Your task to perform on an android device: turn on the 24-hour format for clock Image 0: 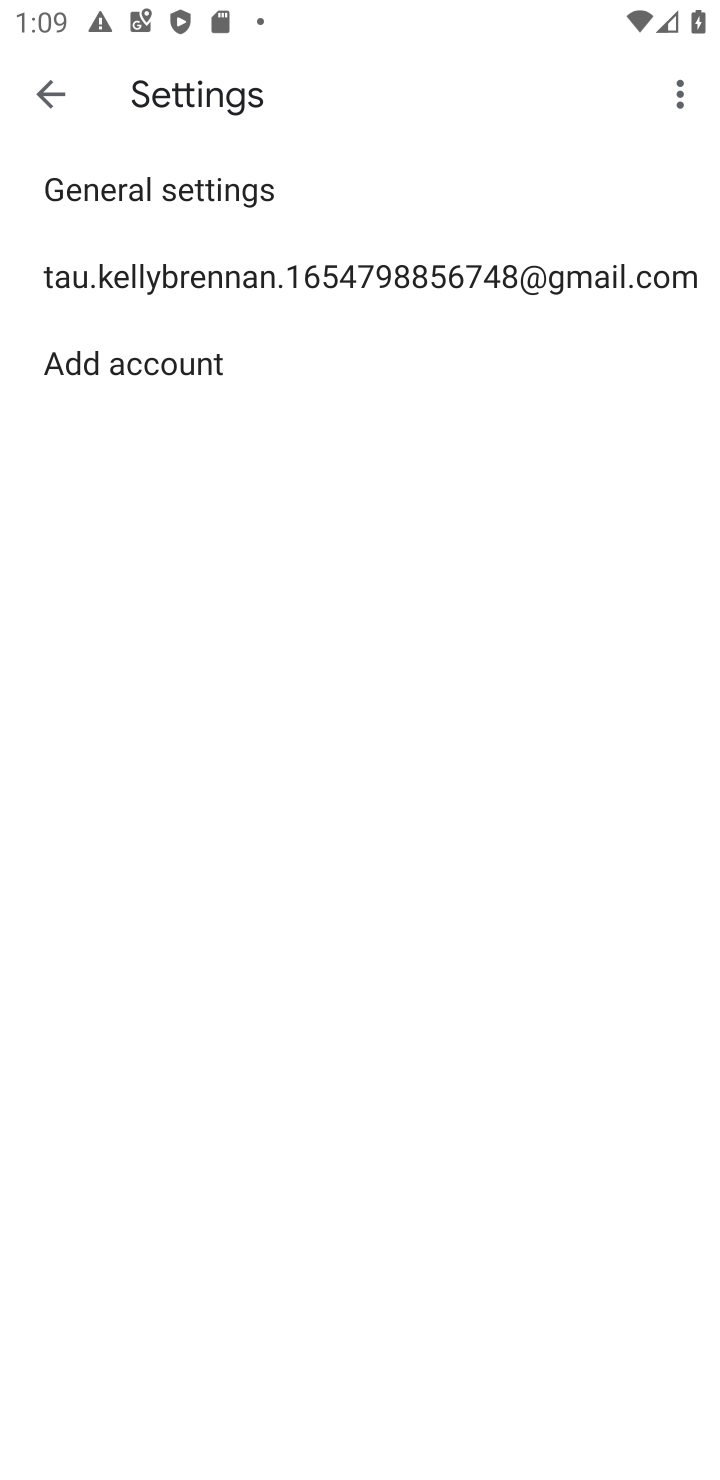
Step 0: press home button
Your task to perform on an android device: turn on the 24-hour format for clock Image 1: 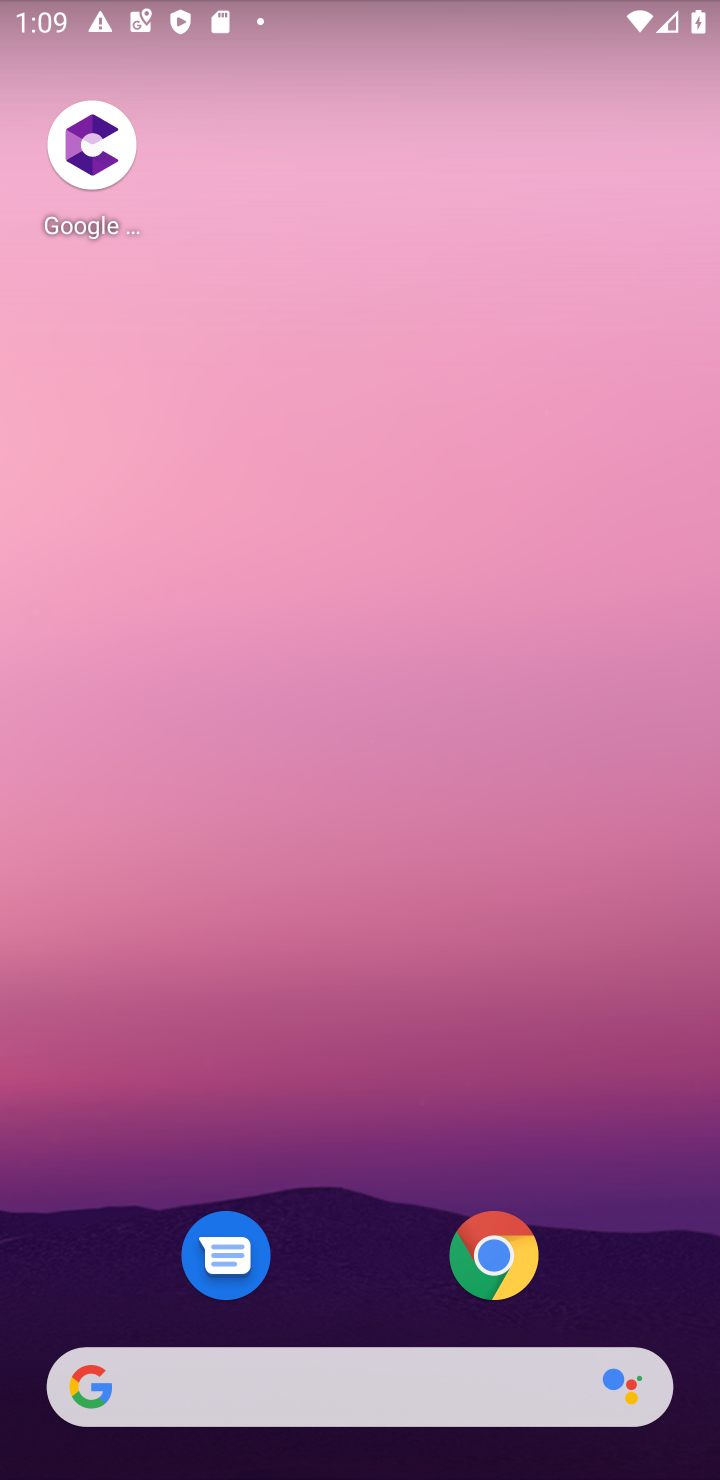
Step 1: drag from (670, 1301) to (404, 547)
Your task to perform on an android device: turn on the 24-hour format for clock Image 2: 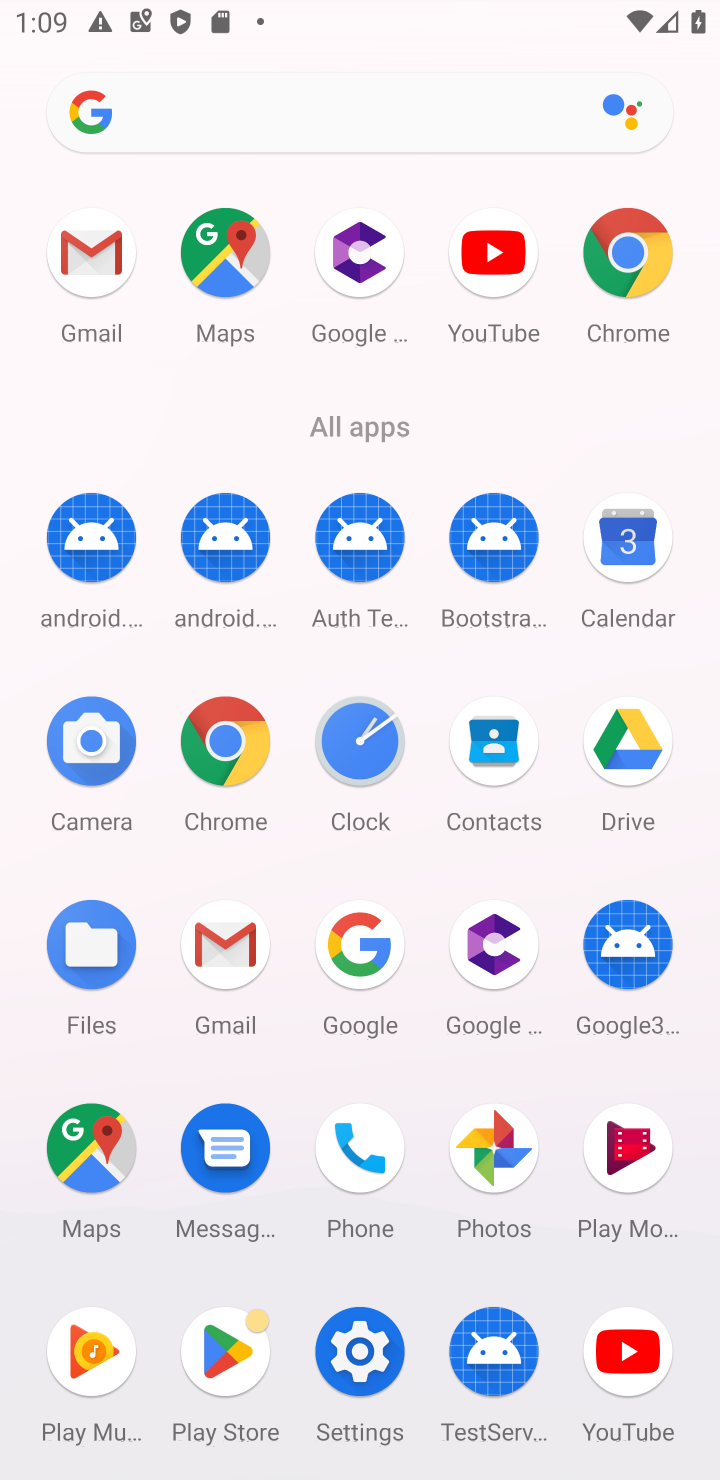
Step 2: click (369, 745)
Your task to perform on an android device: turn on the 24-hour format for clock Image 3: 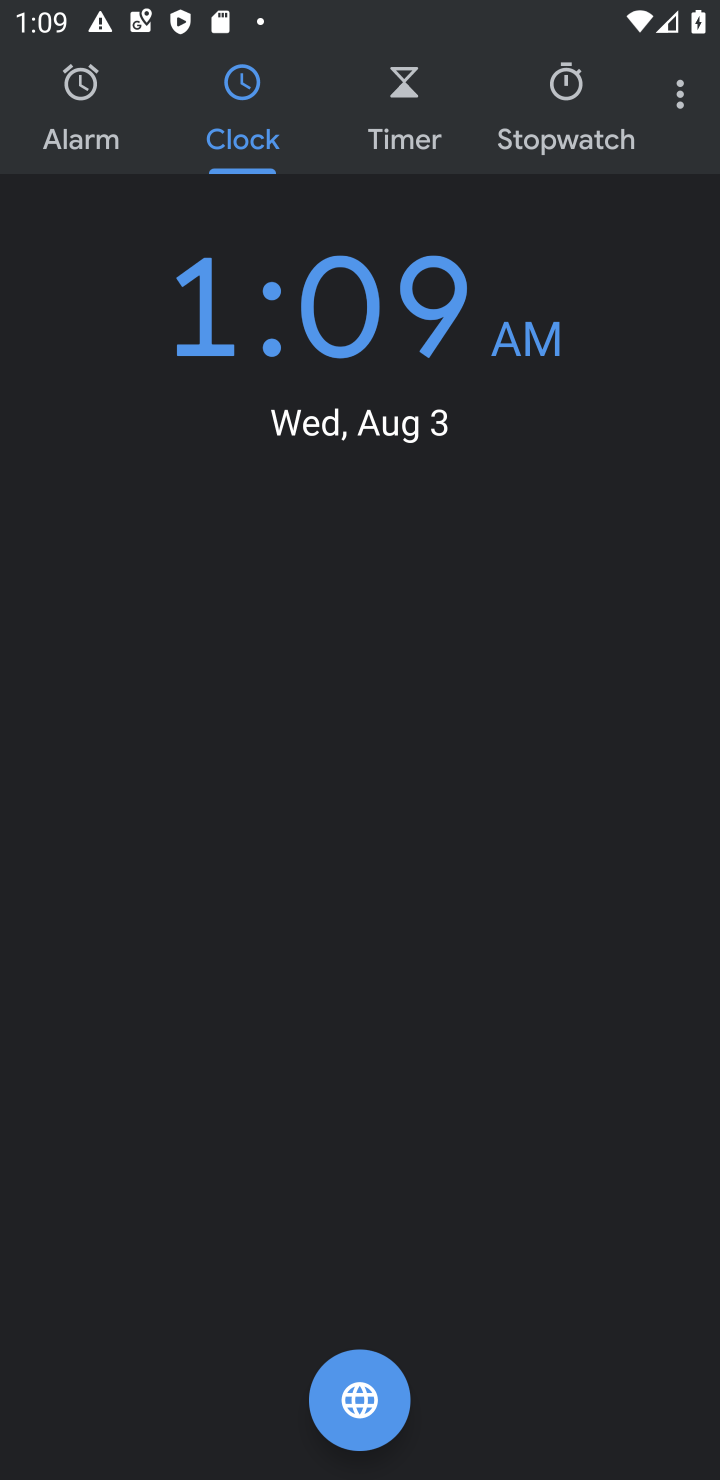
Step 3: click (682, 105)
Your task to perform on an android device: turn on the 24-hour format for clock Image 4: 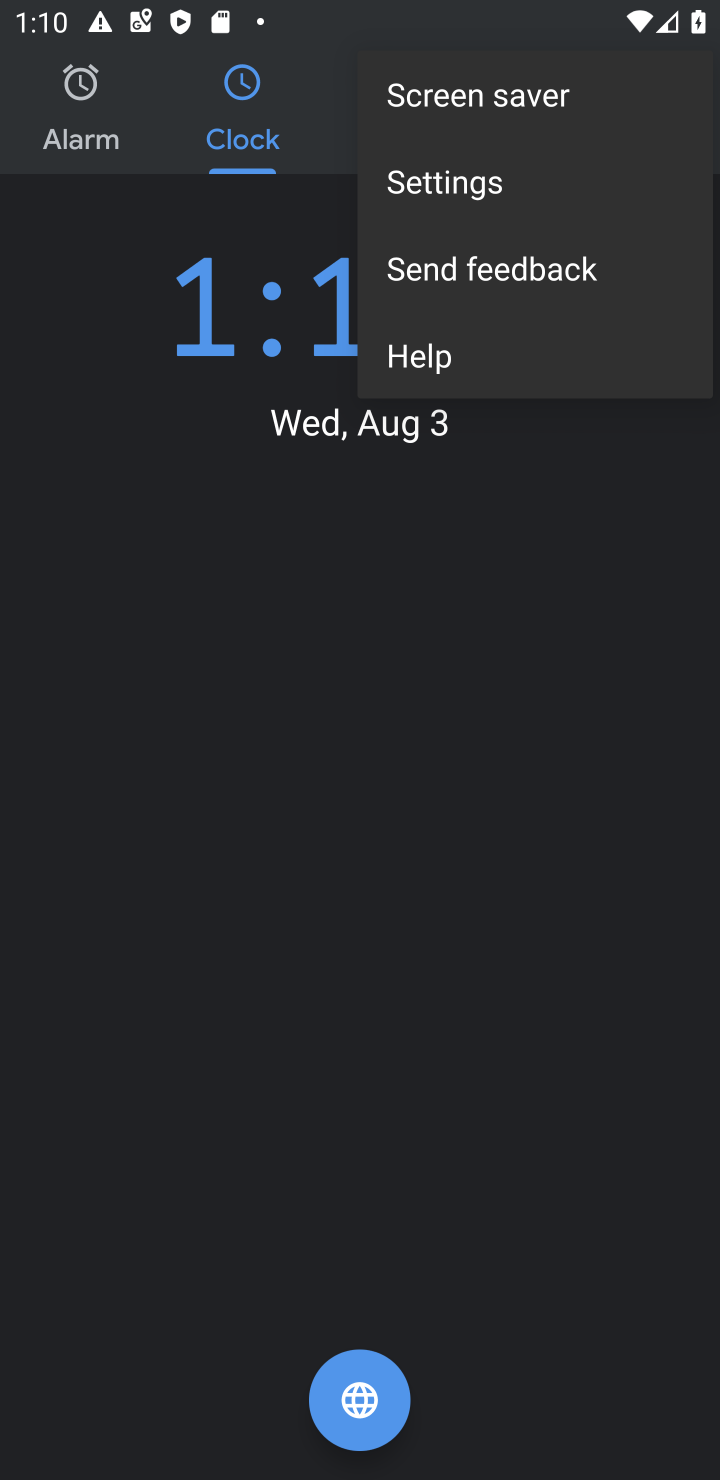
Step 4: click (559, 193)
Your task to perform on an android device: turn on the 24-hour format for clock Image 5: 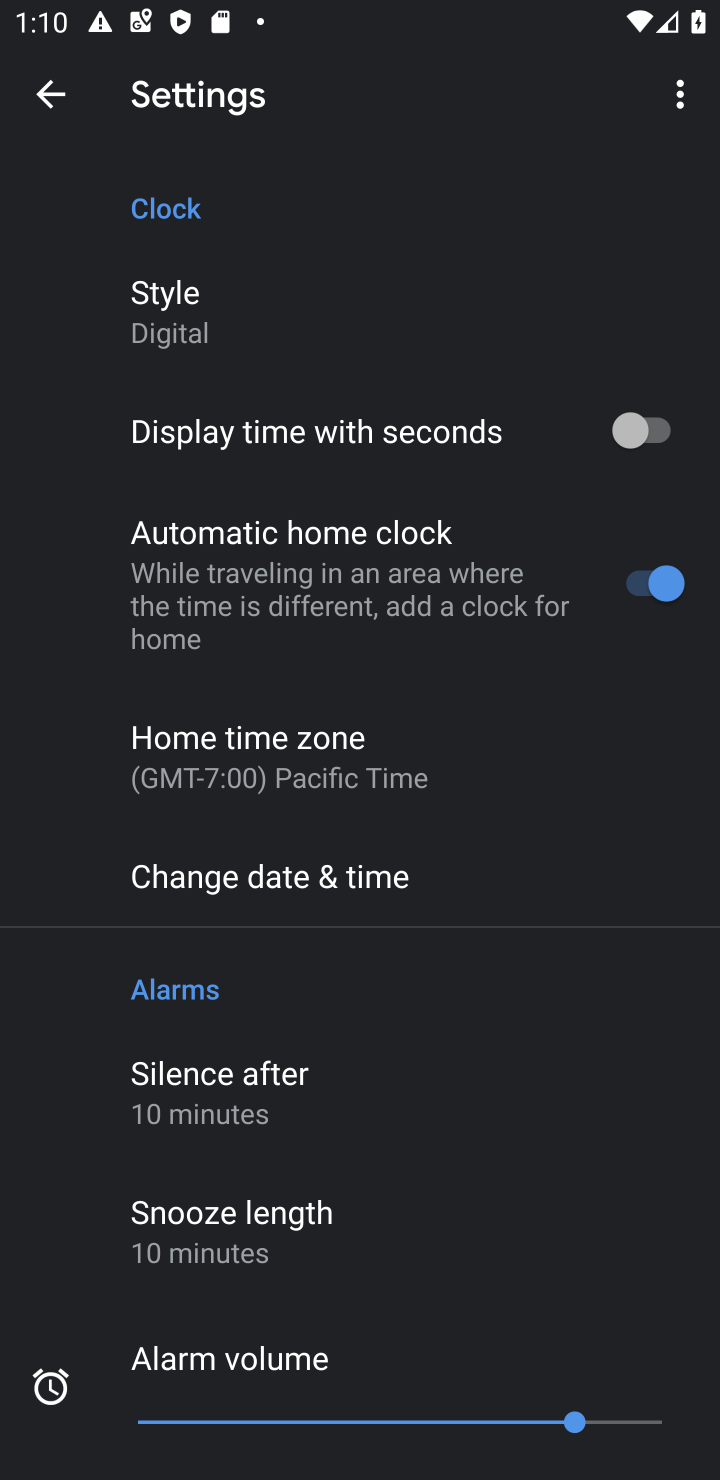
Step 5: click (443, 891)
Your task to perform on an android device: turn on the 24-hour format for clock Image 6: 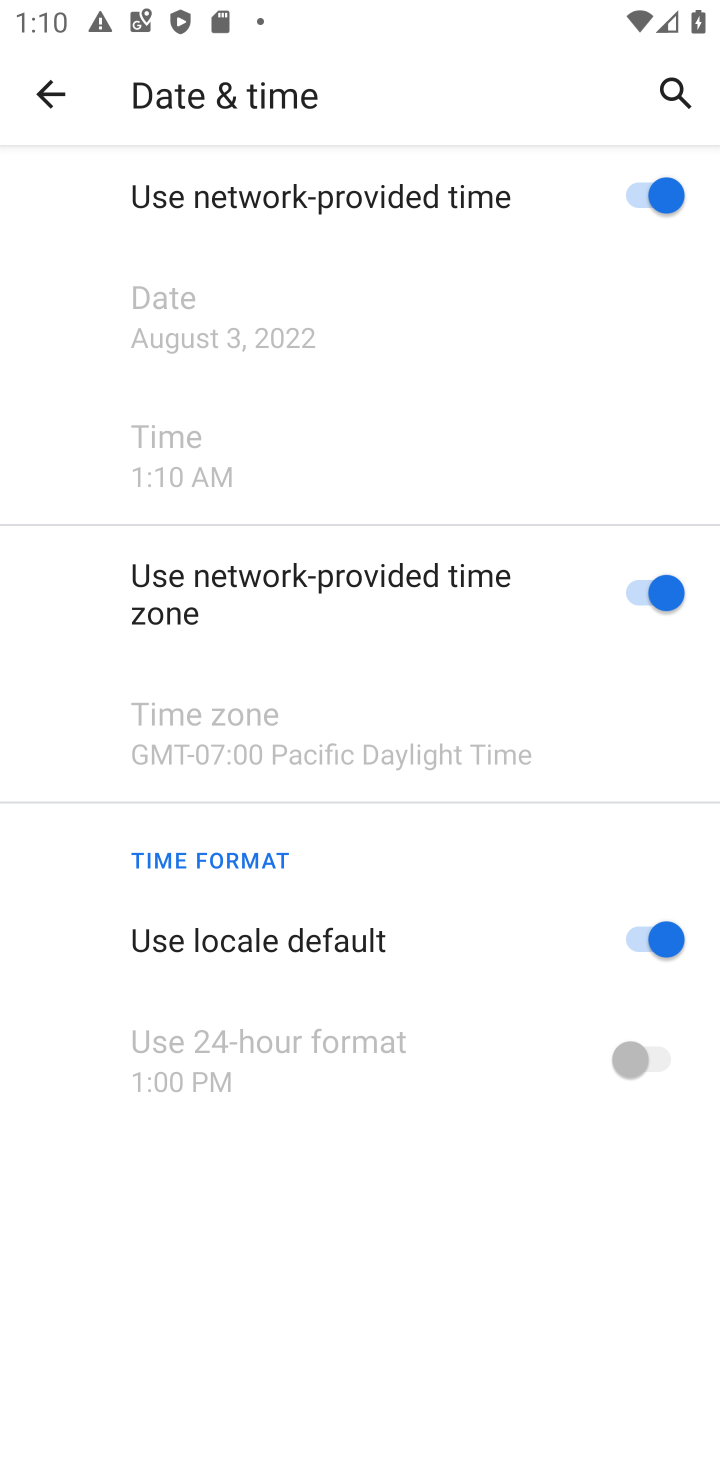
Step 6: click (662, 927)
Your task to perform on an android device: turn on the 24-hour format for clock Image 7: 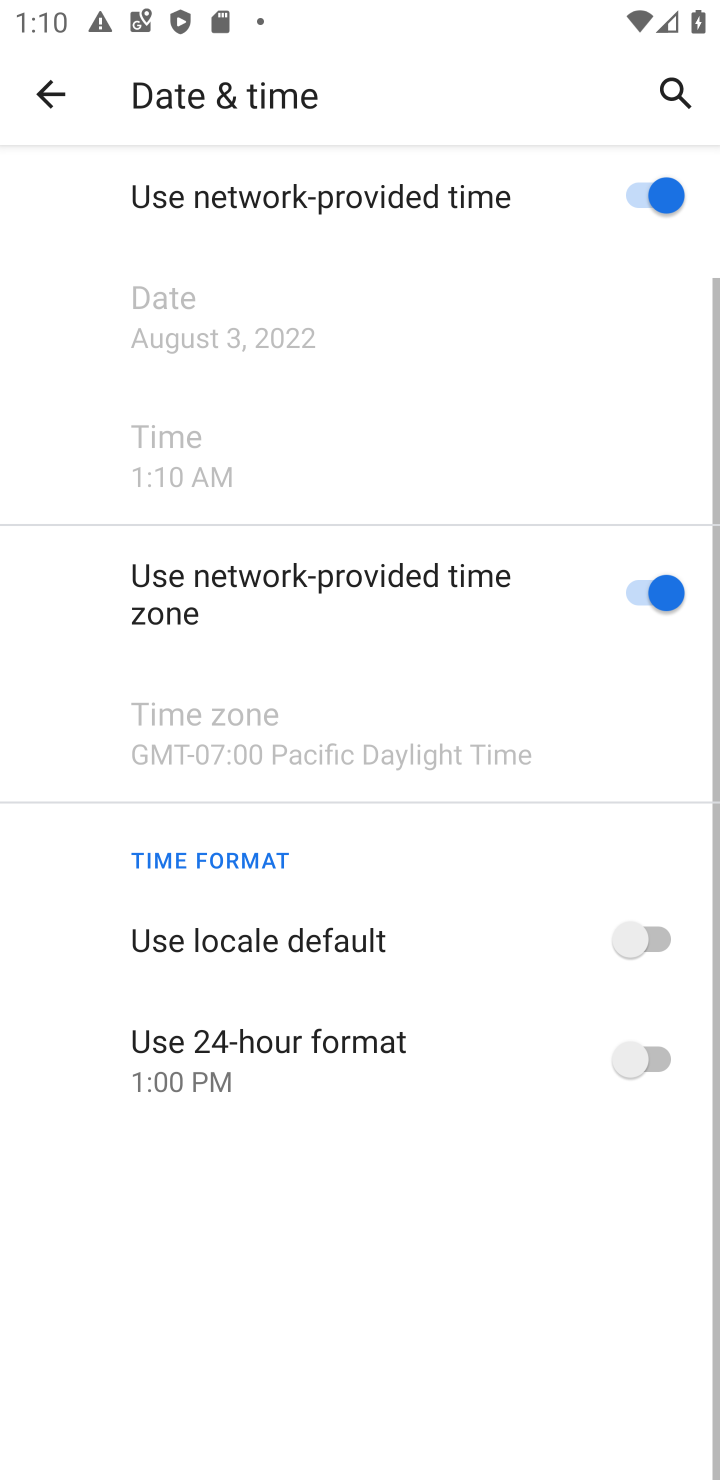
Step 7: click (651, 1080)
Your task to perform on an android device: turn on the 24-hour format for clock Image 8: 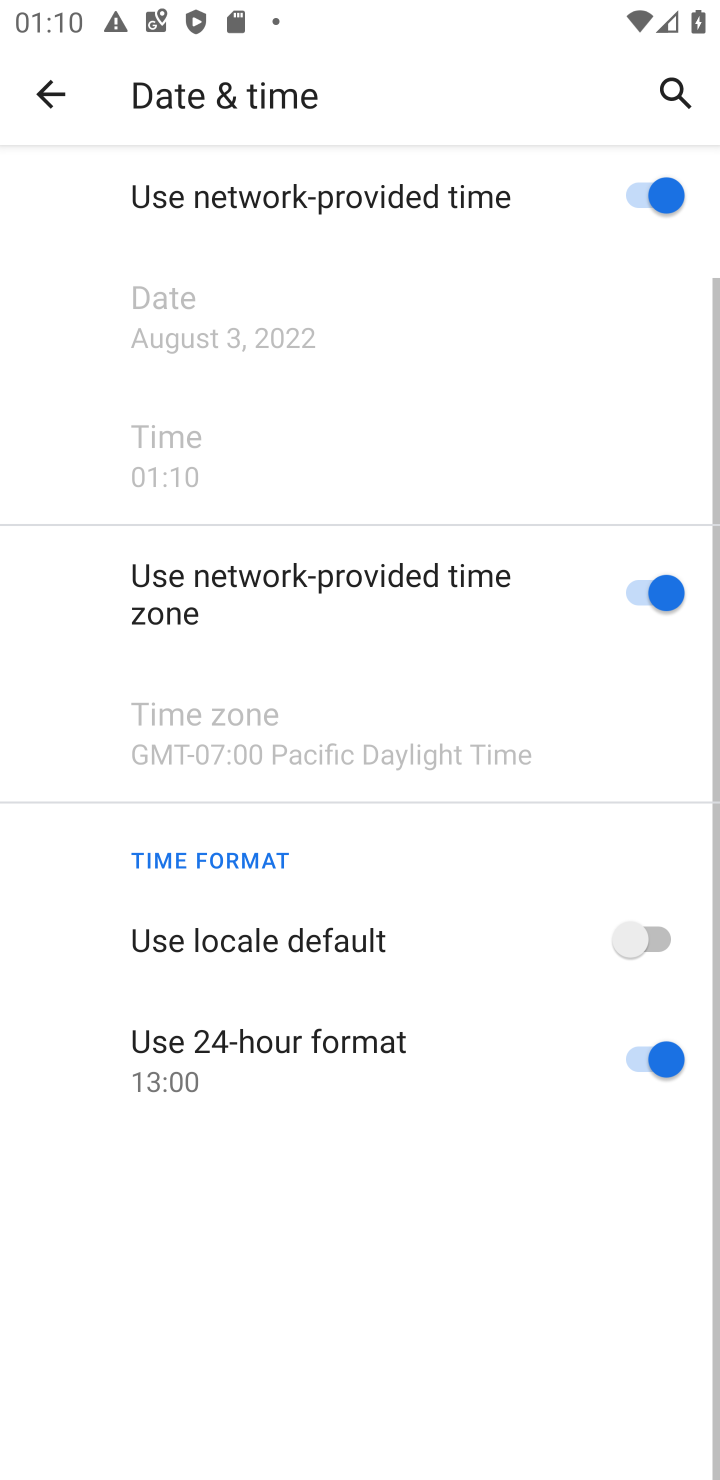
Step 8: task complete